Your task to perform on an android device: Go to eBay Image 0: 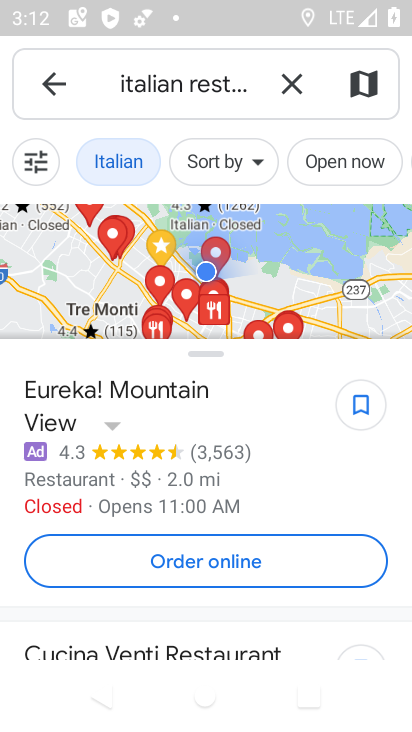
Step 0: press home button
Your task to perform on an android device: Go to eBay Image 1: 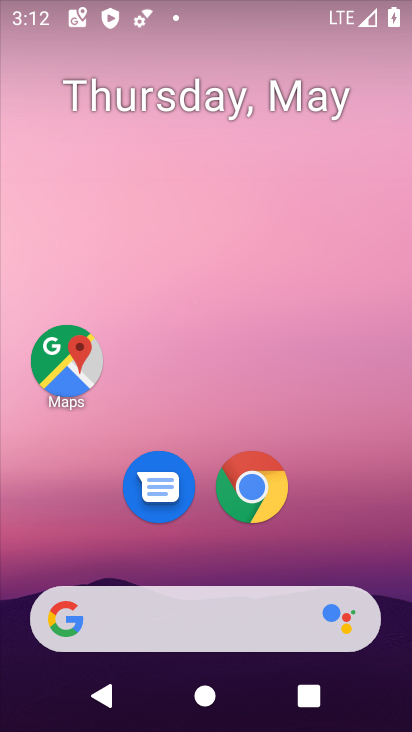
Step 1: drag from (247, 577) to (359, 153)
Your task to perform on an android device: Go to eBay Image 2: 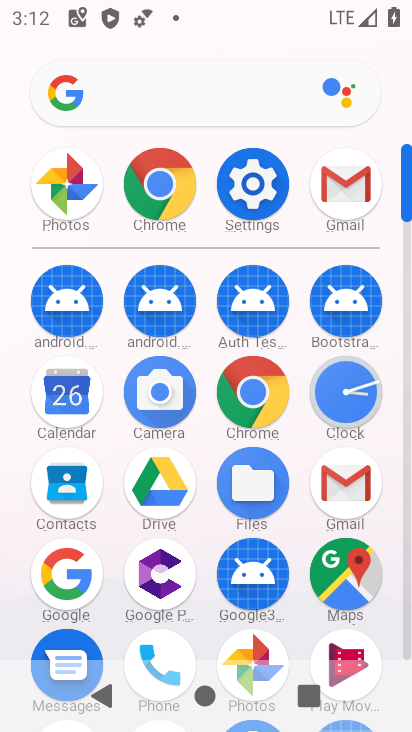
Step 2: click (170, 199)
Your task to perform on an android device: Go to eBay Image 3: 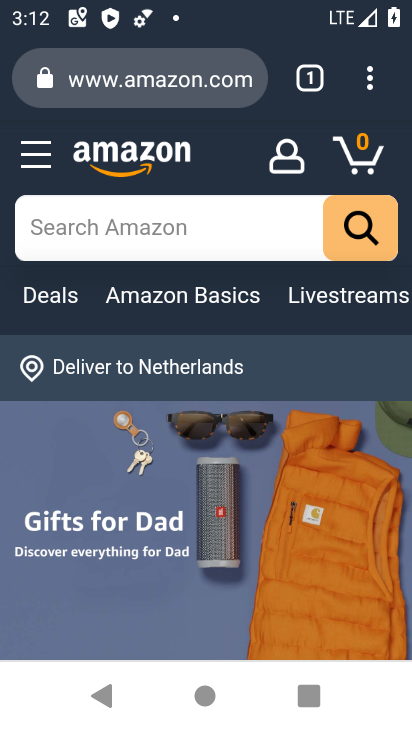
Step 3: click (190, 77)
Your task to perform on an android device: Go to eBay Image 4: 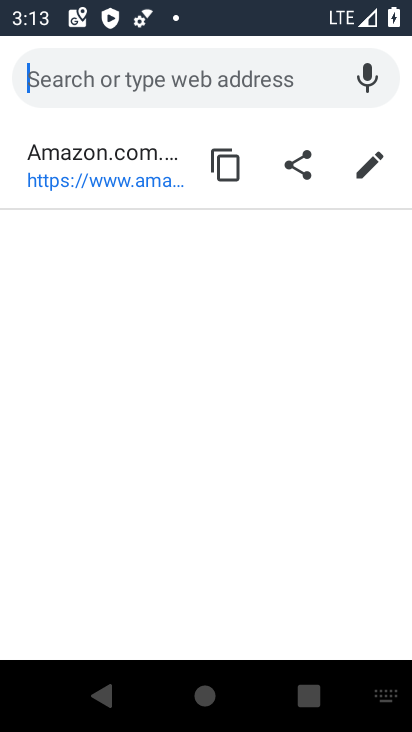
Step 4: type "ebay"
Your task to perform on an android device: Go to eBay Image 5: 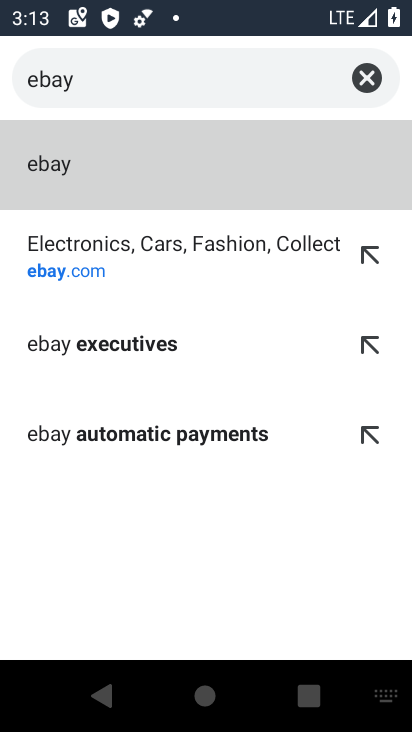
Step 5: click (99, 272)
Your task to perform on an android device: Go to eBay Image 6: 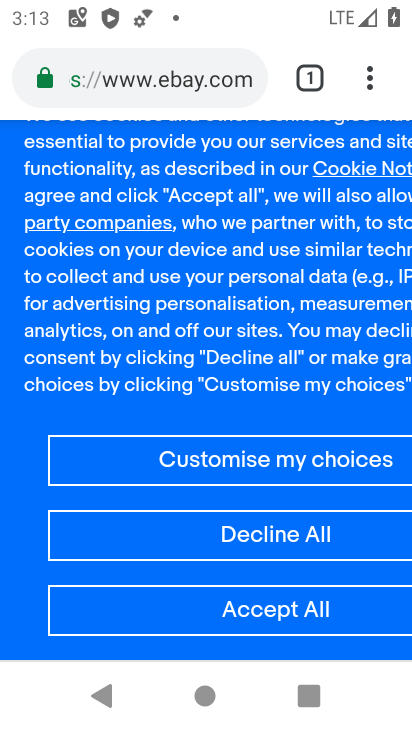
Step 6: task complete